Your task to perform on an android device: Open privacy settings Image 0: 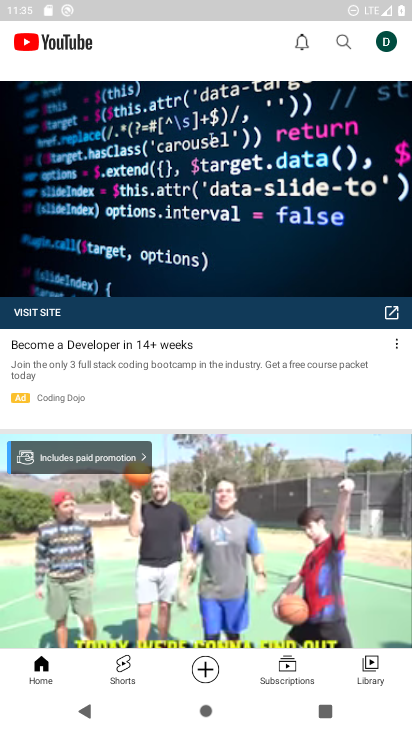
Step 0: press home button
Your task to perform on an android device: Open privacy settings Image 1: 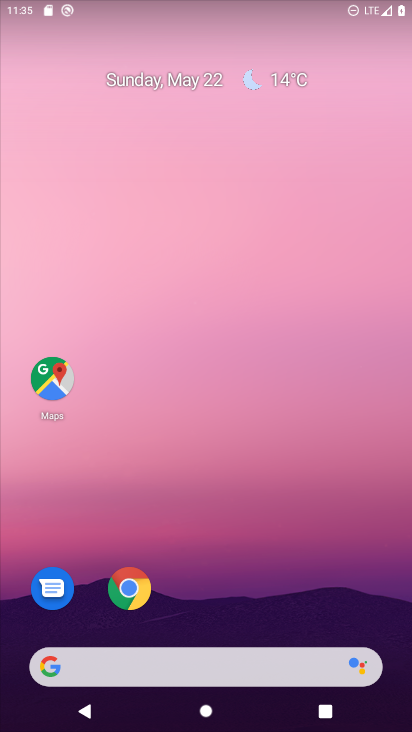
Step 1: drag from (246, 601) to (232, 156)
Your task to perform on an android device: Open privacy settings Image 2: 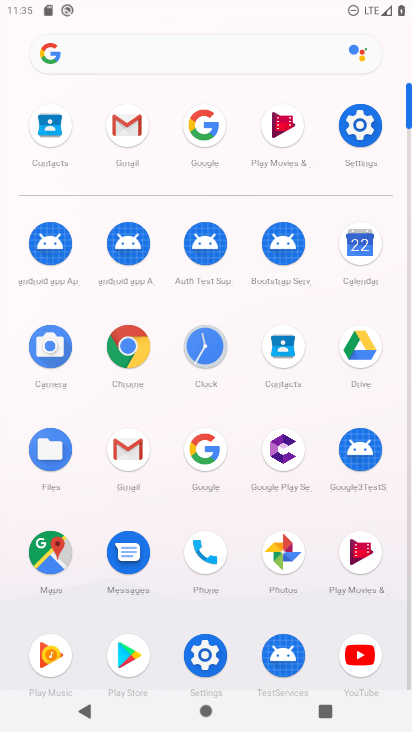
Step 2: click (343, 116)
Your task to perform on an android device: Open privacy settings Image 3: 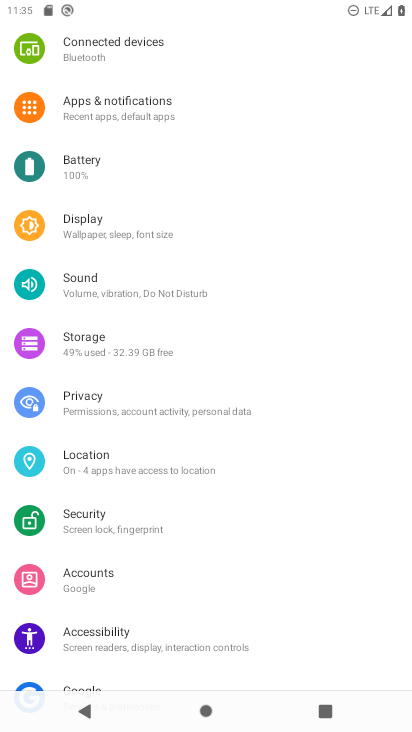
Step 3: click (114, 410)
Your task to perform on an android device: Open privacy settings Image 4: 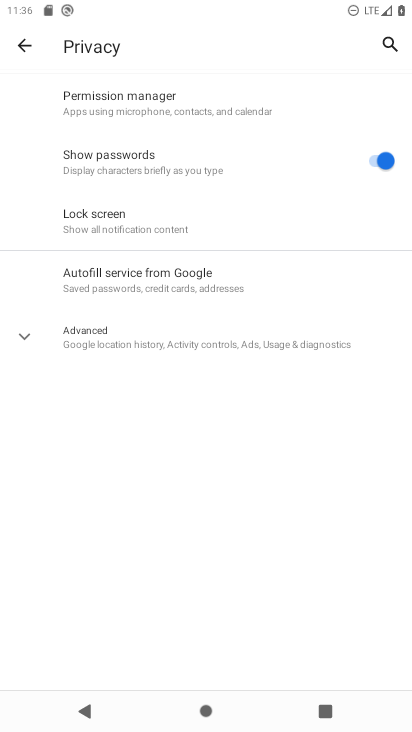
Step 4: task complete